Your task to perform on an android device: Search for Italian restaurants on Maps Image 0: 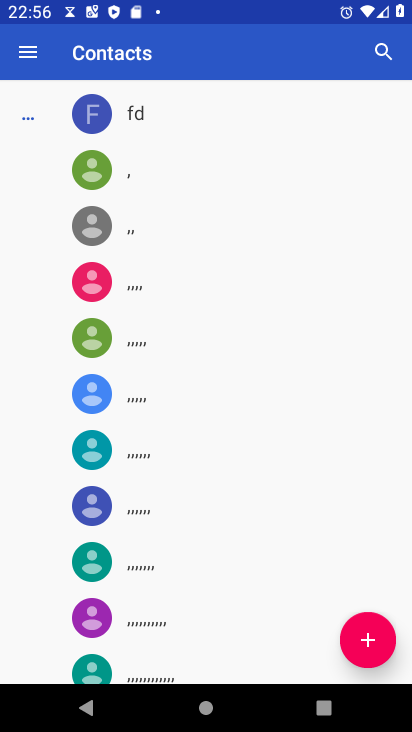
Step 0: press home button
Your task to perform on an android device: Search for Italian restaurants on Maps Image 1: 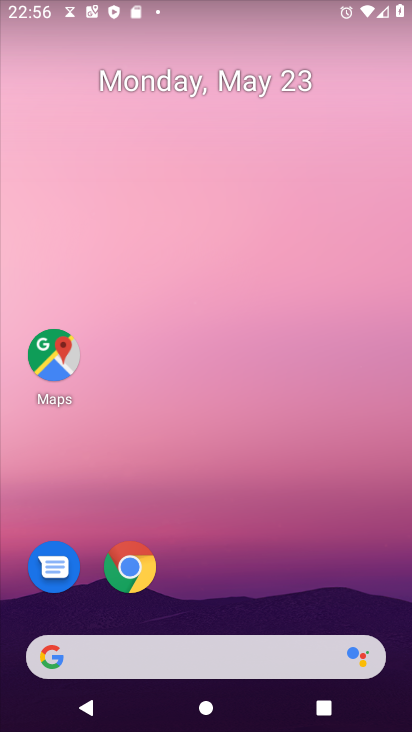
Step 1: drag from (187, 588) to (246, 210)
Your task to perform on an android device: Search for Italian restaurants on Maps Image 2: 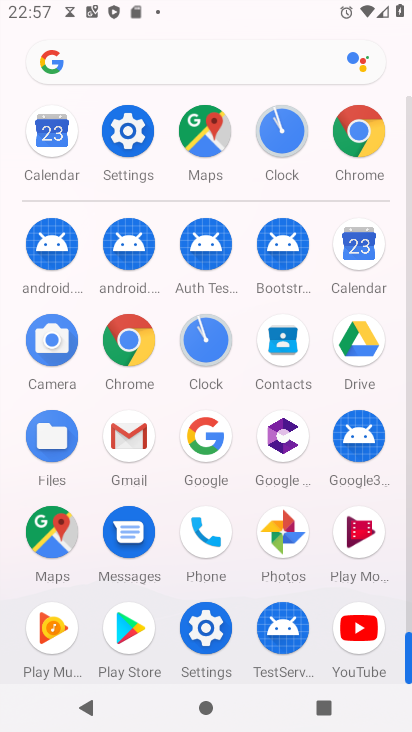
Step 2: click (50, 526)
Your task to perform on an android device: Search for Italian restaurants on Maps Image 3: 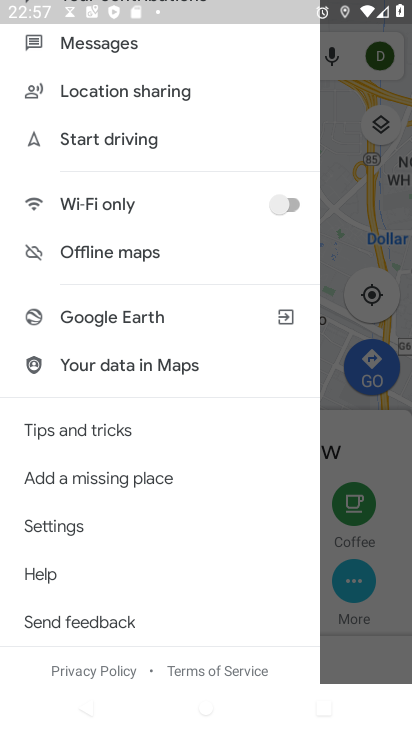
Step 3: click (392, 267)
Your task to perform on an android device: Search for Italian restaurants on Maps Image 4: 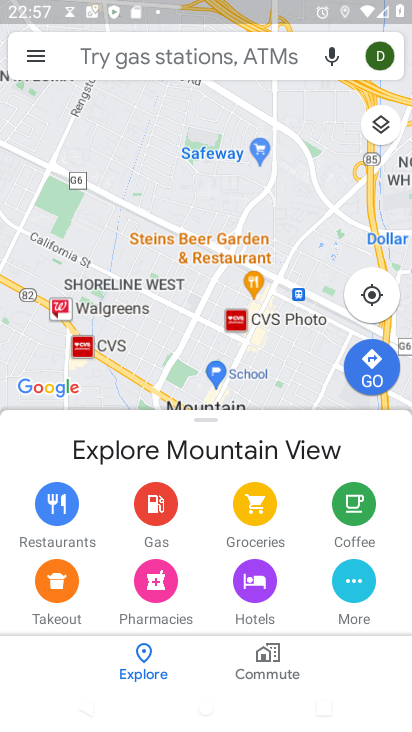
Step 4: click (222, 52)
Your task to perform on an android device: Search for Italian restaurants on Maps Image 5: 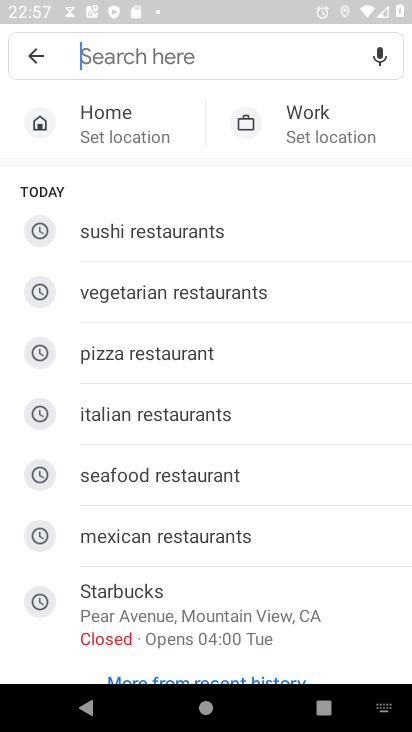
Step 5: click (176, 416)
Your task to perform on an android device: Search for Italian restaurants on Maps Image 6: 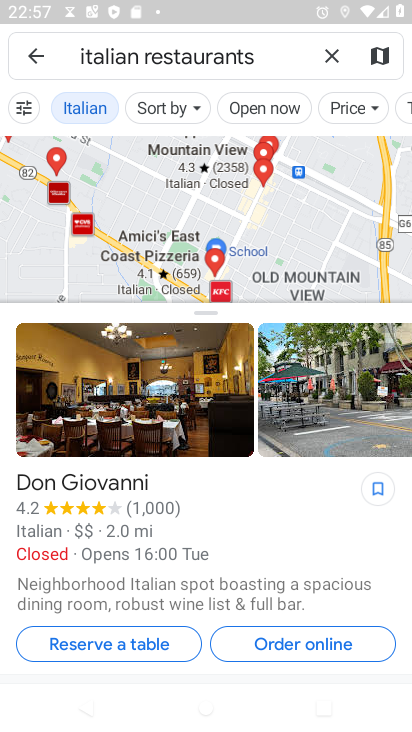
Step 6: task complete